Your task to perform on an android device: Go to battery settings Image 0: 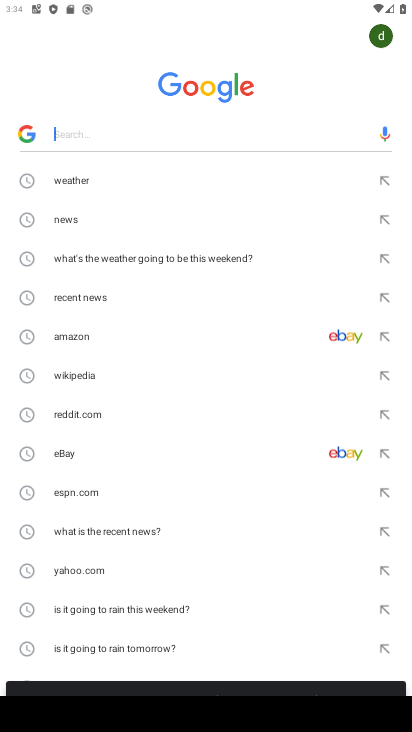
Step 0: press home button
Your task to perform on an android device: Go to battery settings Image 1: 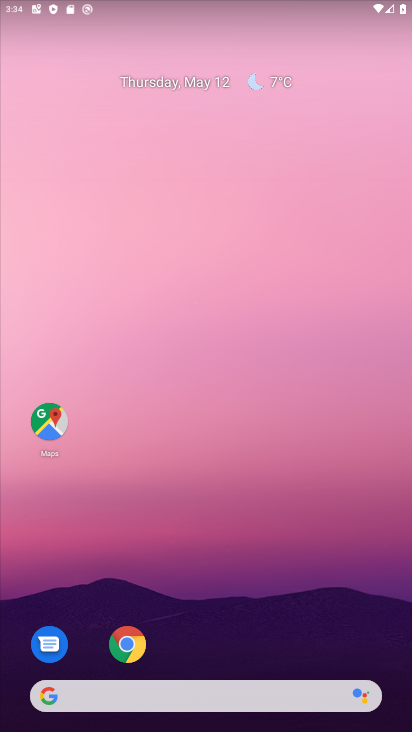
Step 1: drag from (216, 656) to (263, 196)
Your task to perform on an android device: Go to battery settings Image 2: 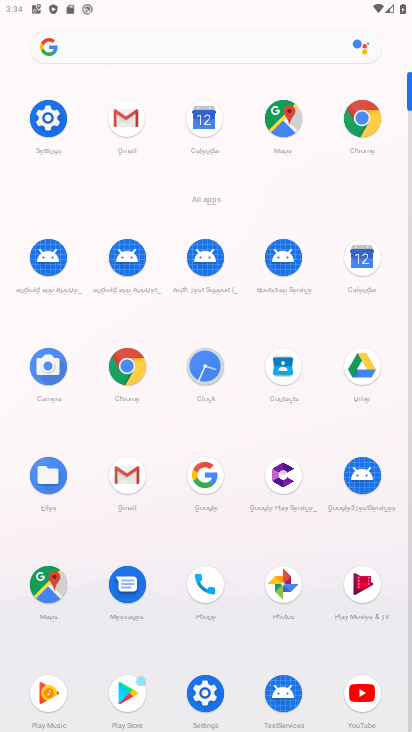
Step 2: click (43, 112)
Your task to perform on an android device: Go to battery settings Image 3: 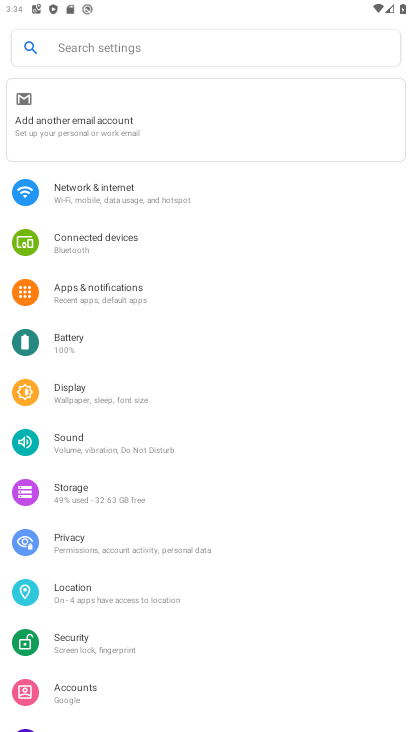
Step 3: click (88, 336)
Your task to perform on an android device: Go to battery settings Image 4: 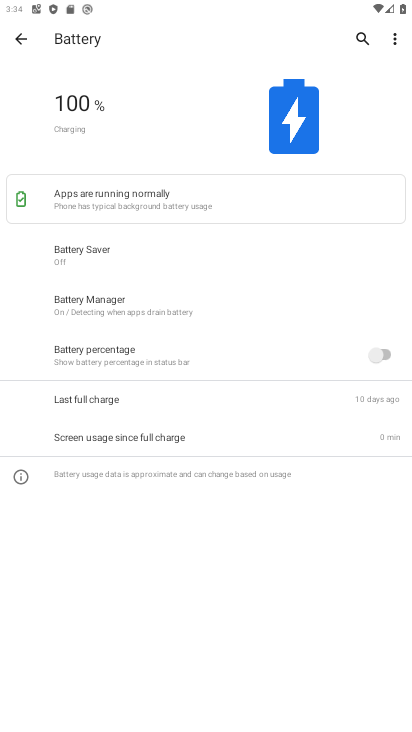
Step 4: task complete